Your task to perform on an android device: Open settings Image 0: 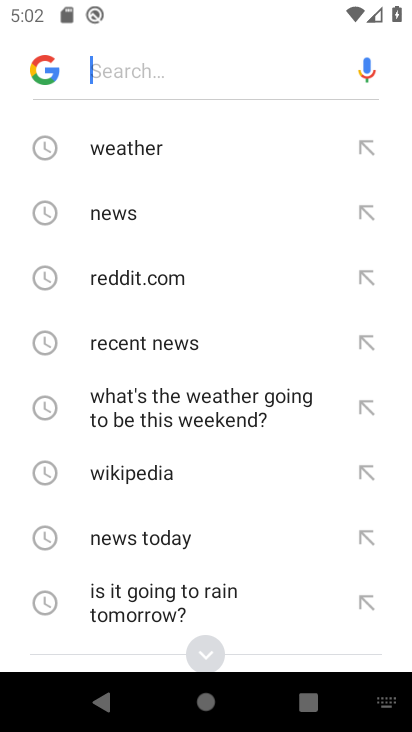
Step 0: press back button
Your task to perform on an android device: Open settings Image 1: 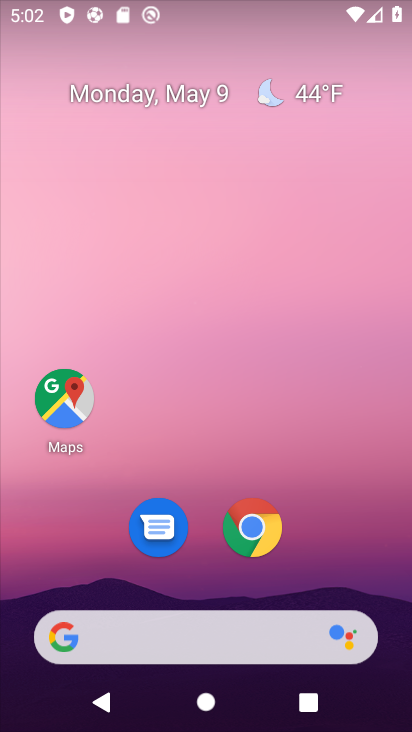
Step 1: drag from (301, 328) to (269, 52)
Your task to perform on an android device: Open settings Image 2: 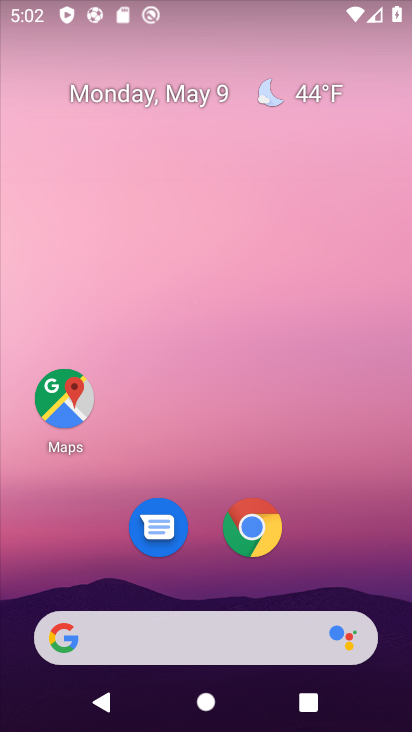
Step 2: drag from (321, 568) to (219, 8)
Your task to perform on an android device: Open settings Image 3: 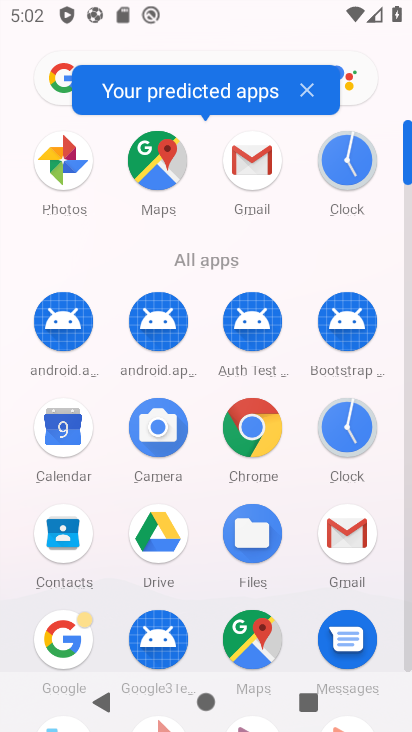
Step 3: drag from (13, 501) to (8, 174)
Your task to perform on an android device: Open settings Image 4: 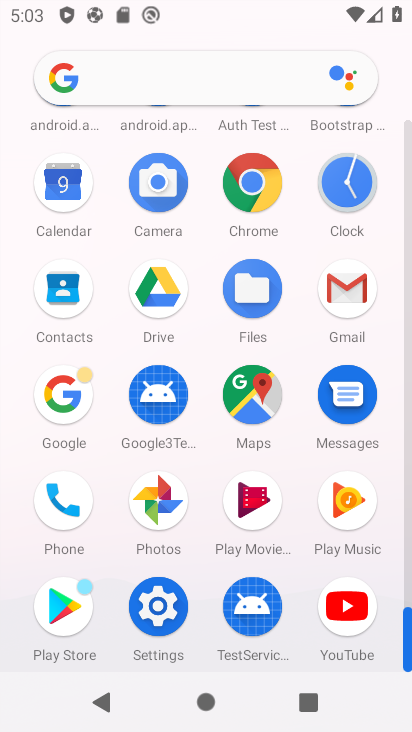
Step 4: click (158, 606)
Your task to perform on an android device: Open settings Image 5: 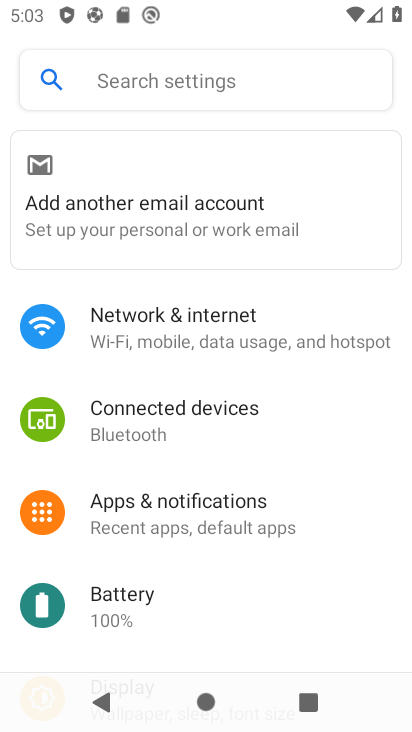
Step 5: task complete